Your task to perform on an android device: create a new album in the google photos Image 0: 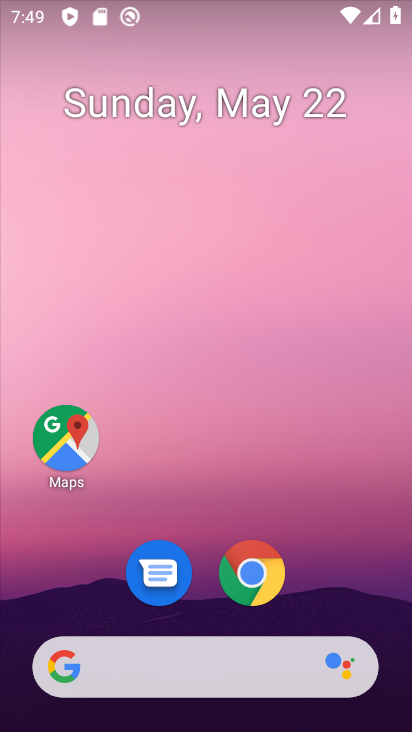
Step 0: drag from (393, 624) to (412, 175)
Your task to perform on an android device: create a new album in the google photos Image 1: 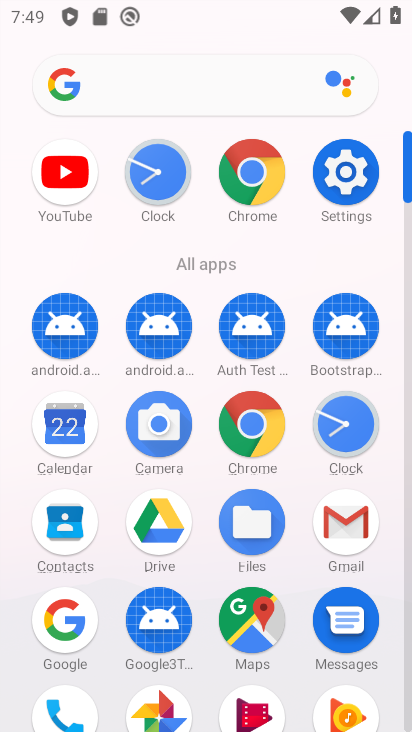
Step 1: drag from (305, 675) to (333, 345)
Your task to perform on an android device: create a new album in the google photos Image 2: 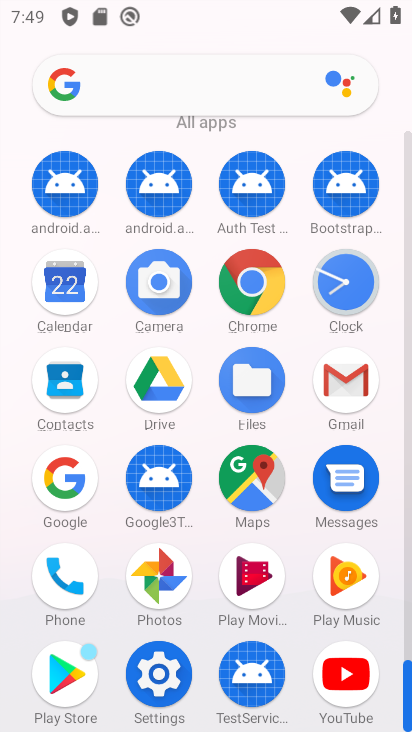
Step 2: click (168, 580)
Your task to perform on an android device: create a new album in the google photos Image 3: 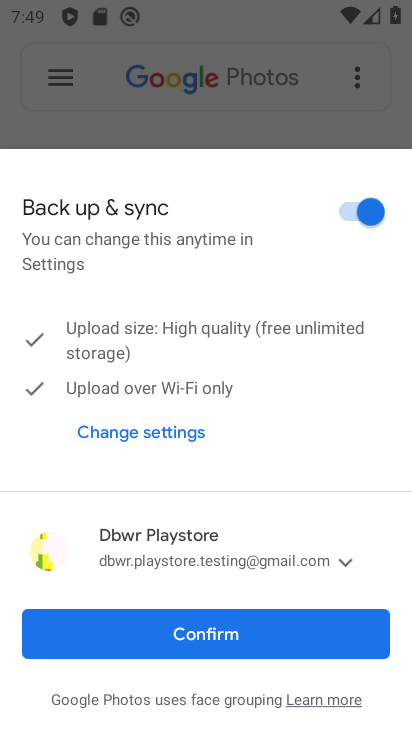
Step 3: click (208, 630)
Your task to perform on an android device: create a new album in the google photos Image 4: 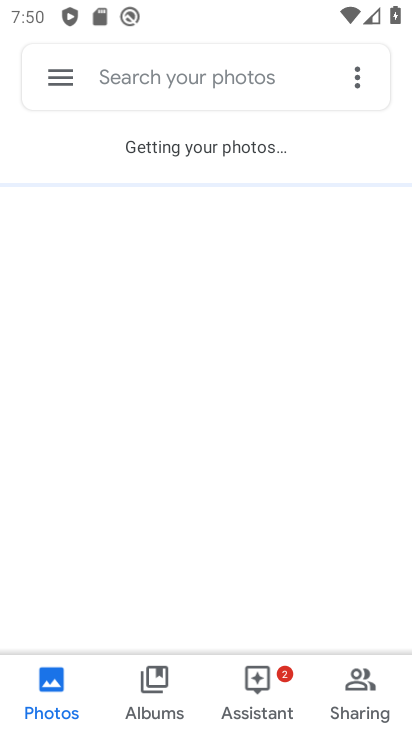
Step 4: click (171, 687)
Your task to perform on an android device: create a new album in the google photos Image 5: 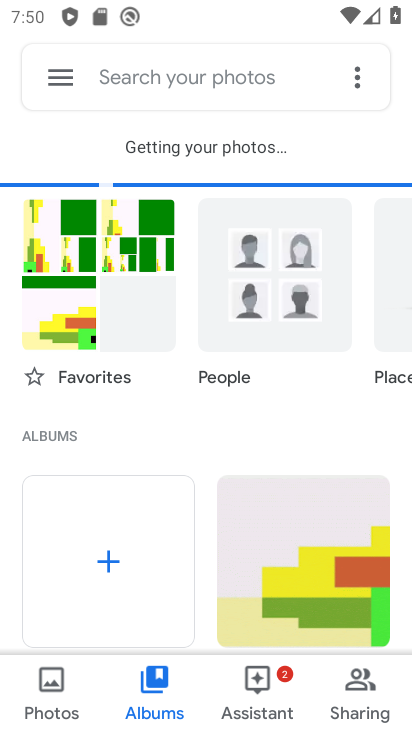
Step 5: click (96, 527)
Your task to perform on an android device: create a new album in the google photos Image 6: 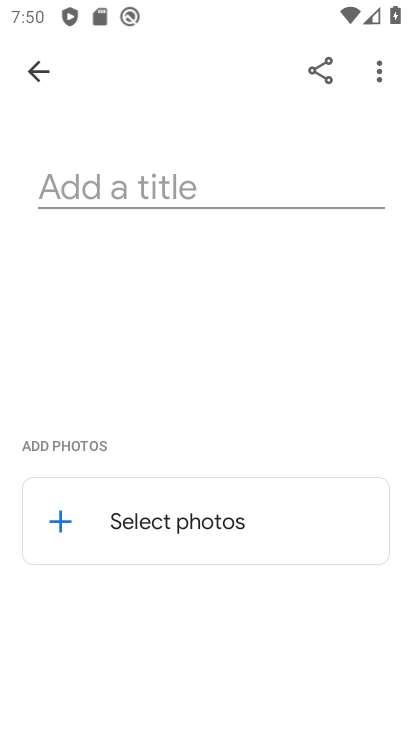
Step 6: click (261, 187)
Your task to perform on an android device: create a new album in the google photos Image 7: 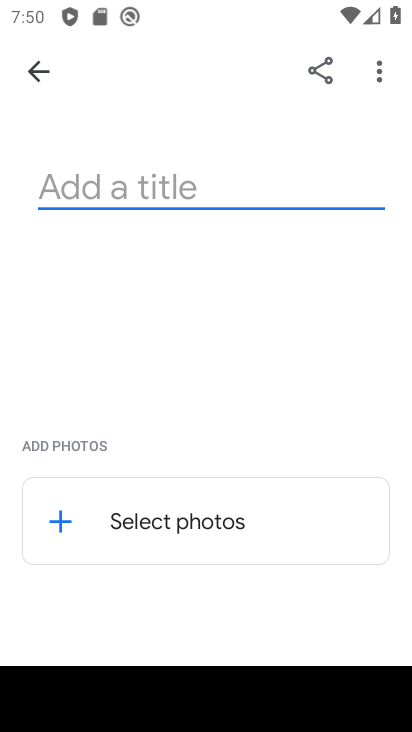
Step 7: type "good"
Your task to perform on an android device: create a new album in the google photos Image 8: 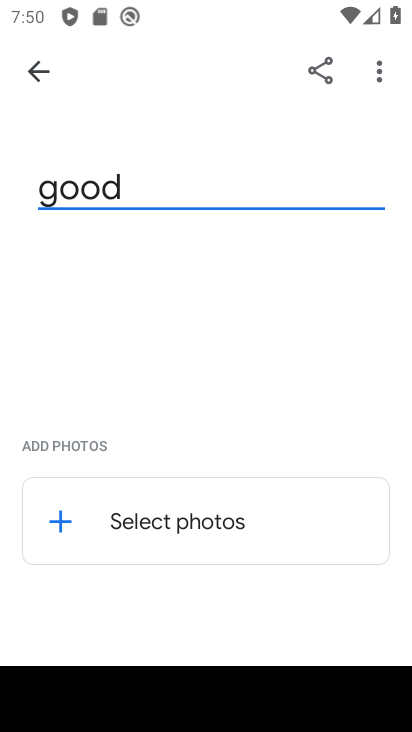
Step 8: click (59, 519)
Your task to perform on an android device: create a new album in the google photos Image 9: 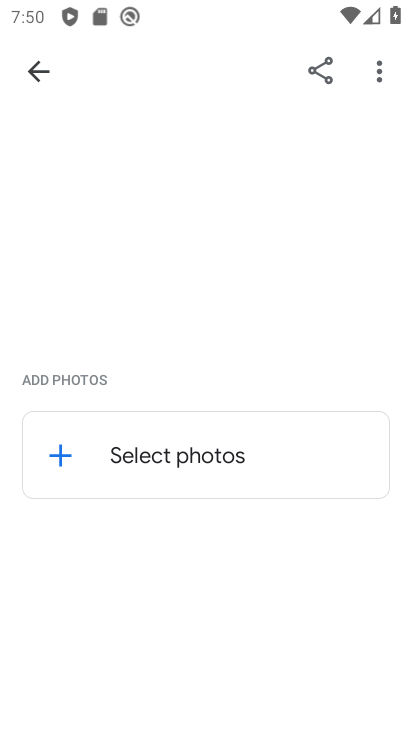
Step 9: click (60, 466)
Your task to perform on an android device: create a new album in the google photos Image 10: 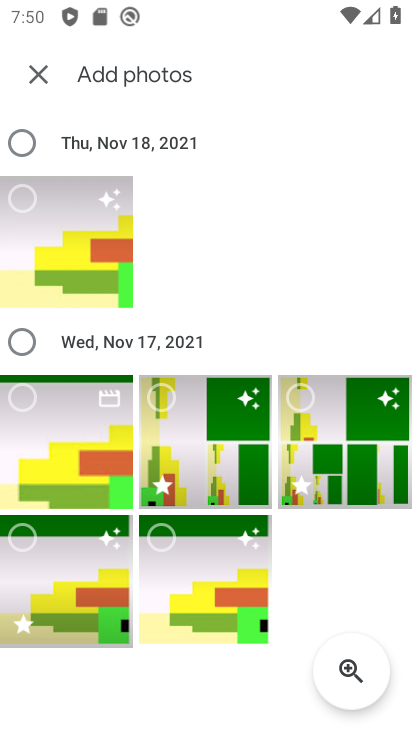
Step 10: click (16, 204)
Your task to perform on an android device: create a new album in the google photos Image 11: 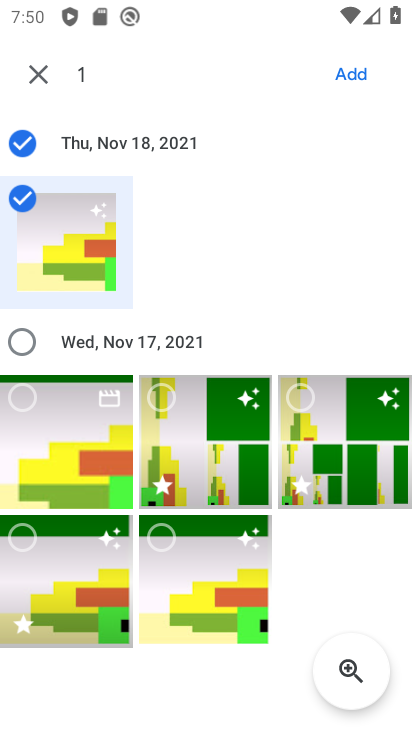
Step 11: click (360, 75)
Your task to perform on an android device: create a new album in the google photos Image 12: 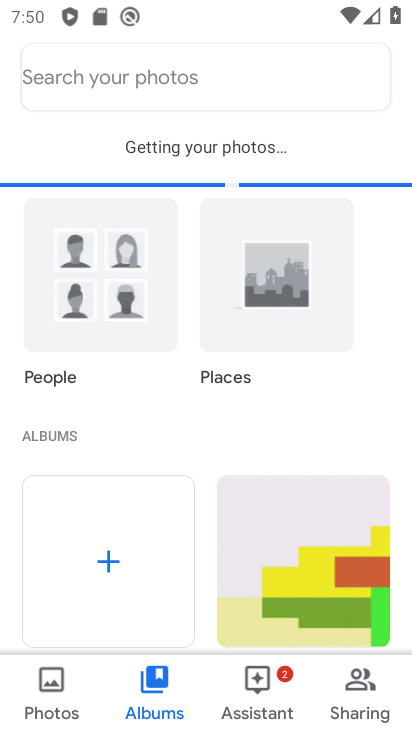
Step 12: task complete